Your task to perform on an android device: Go to accessibility settings Image 0: 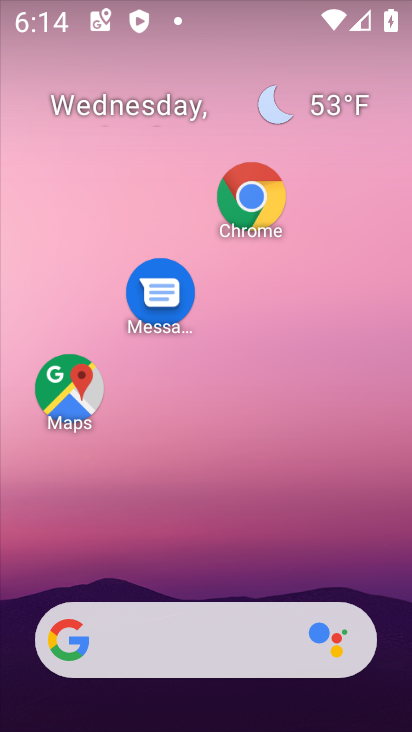
Step 0: drag from (190, 564) to (176, 3)
Your task to perform on an android device: Go to accessibility settings Image 1: 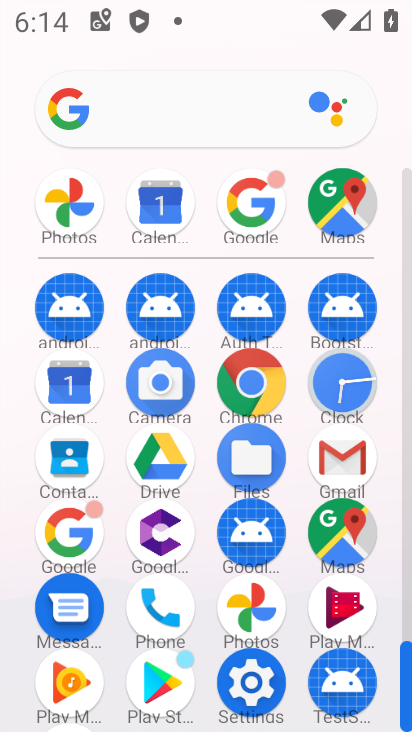
Step 1: click (246, 691)
Your task to perform on an android device: Go to accessibility settings Image 2: 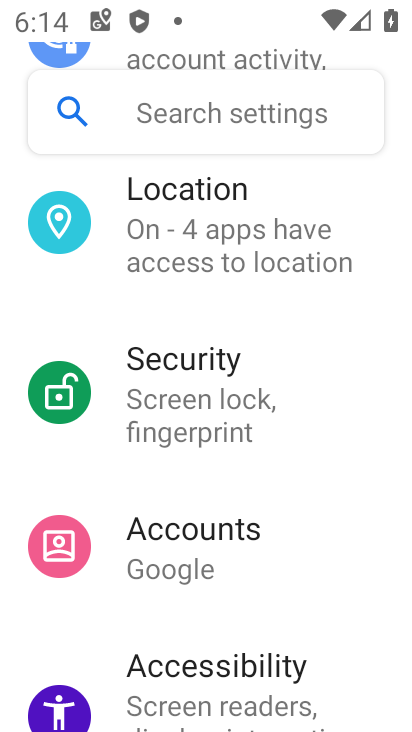
Step 2: click (211, 690)
Your task to perform on an android device: Go to accessibility settings Image 3: 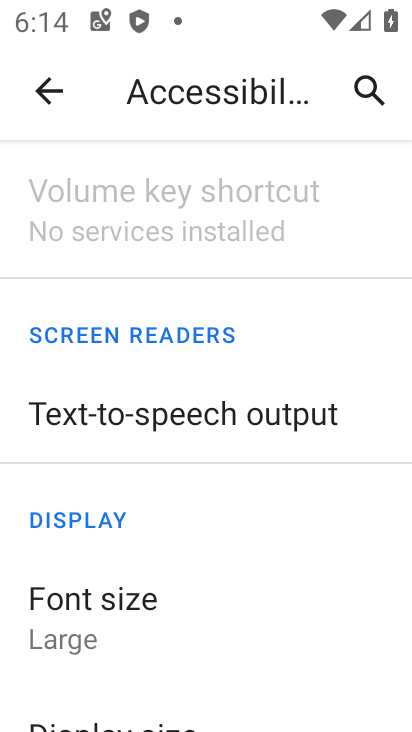
Step 3: task complete